Your task to perform on an android device: Open wifi settings Image 0: 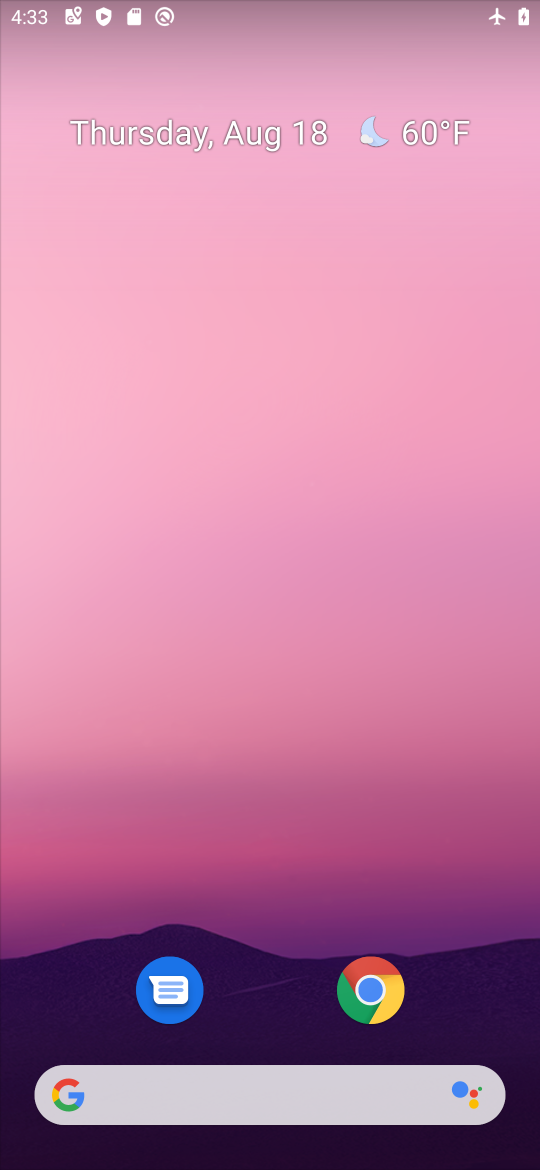
Step 0: drag from (244, 956) to (309, 136)
Your task to perform on an android device: Open wifi settings Image 1: 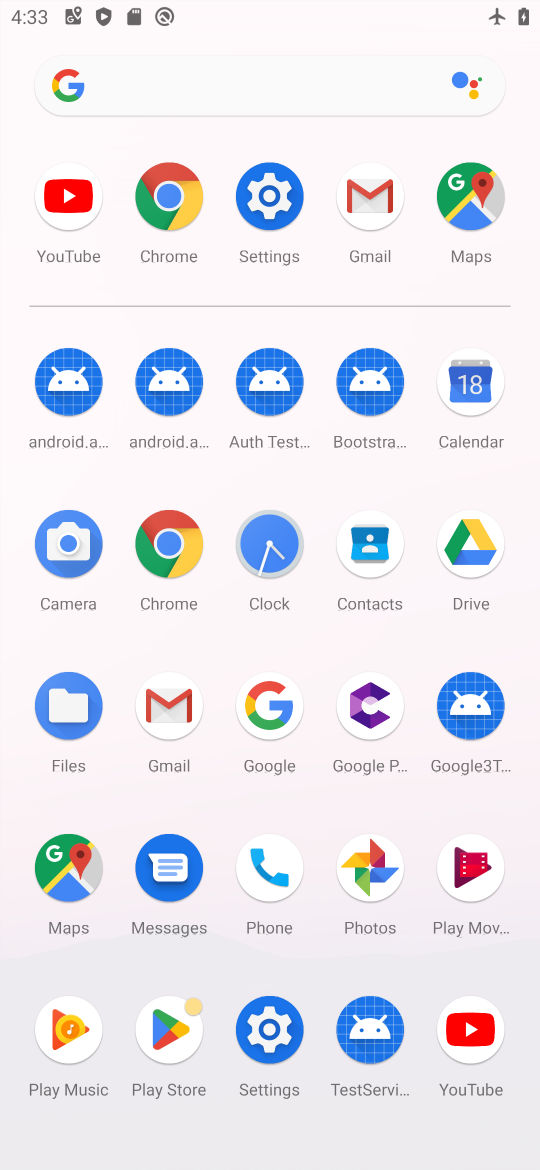
Step 1: click (266, 1002)
Your task to perform on an android device: Open wifi settings Image 2: 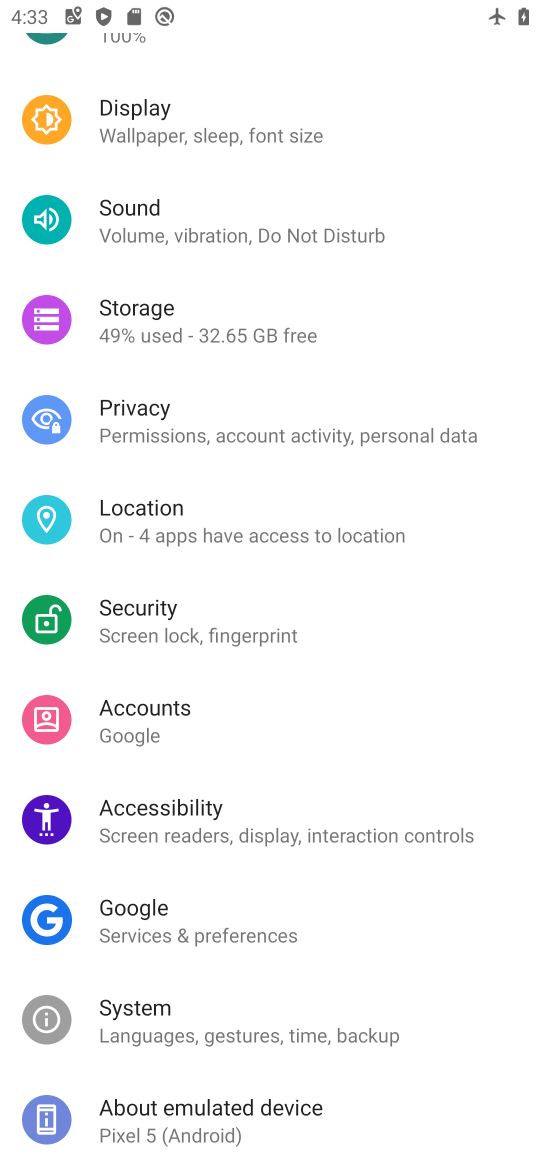
Step 2: drag from (305, 218) to (249, 896)
Your task to perform on an android device: Open wifi settings Image 3: 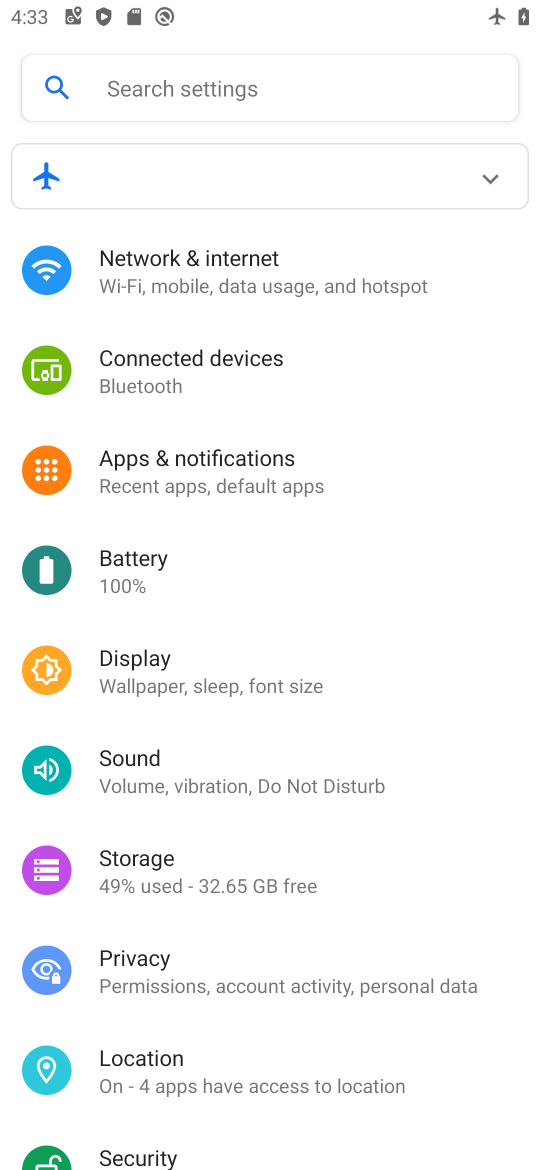
Step 3: click (195, 274)
Your task to perform on an android device: Open wifi settings Image 4: 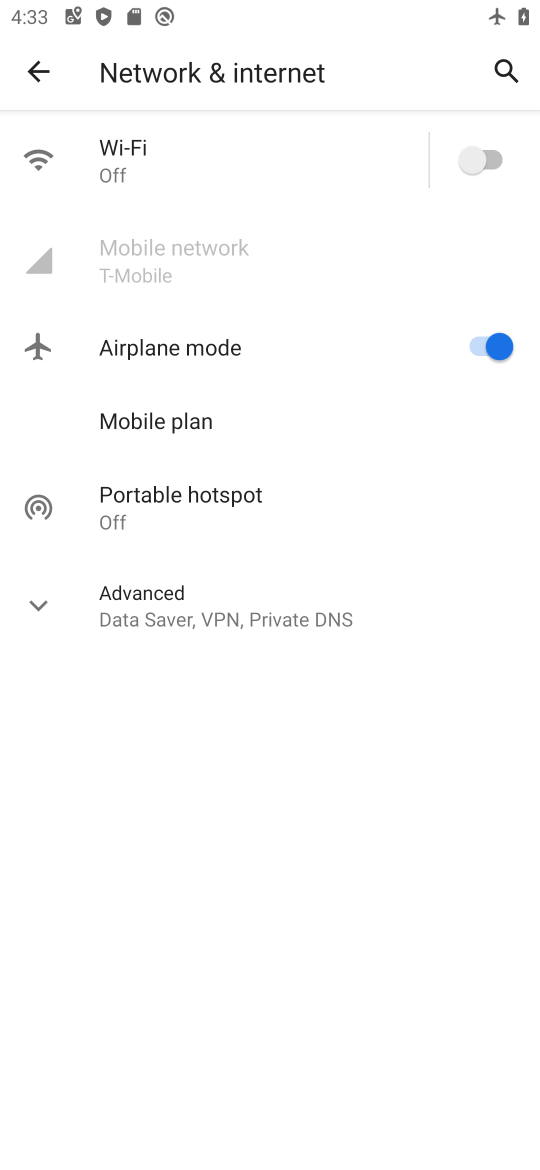
Step 4: click (103, 150)
Your task to perform on an android device: Open wifi settings Image 5: 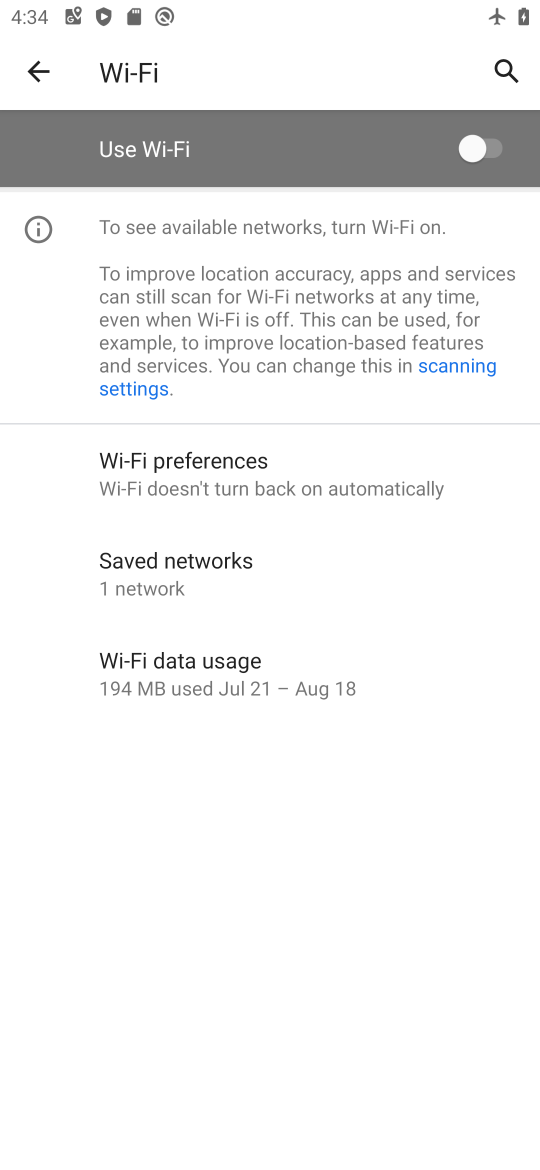
Step 5: task complete